Your task to perform on an android device: Open settings Image 0: 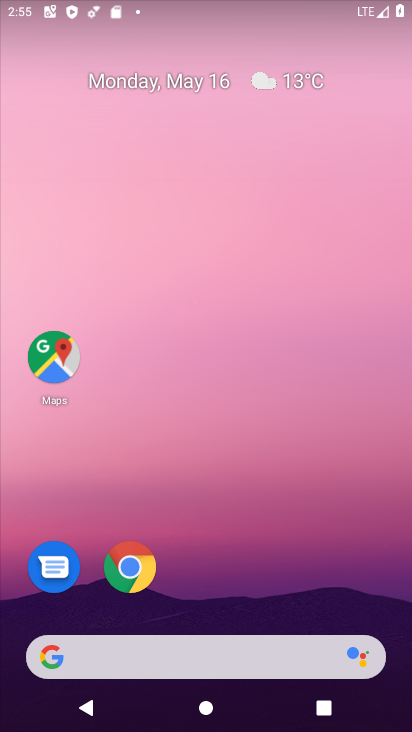
Step 0: drag from (253, 607) to (328, 52)
Your task to perform on an android device: Open settings Image 1: 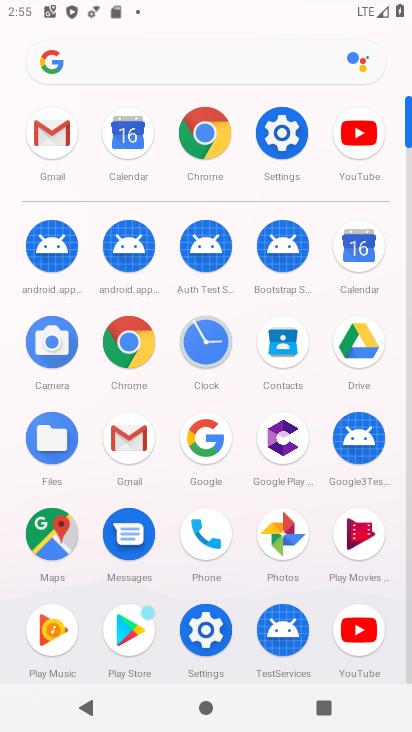
Step 1: click (289, 120)
Your task to perform on an android device: Open settings Image 2: 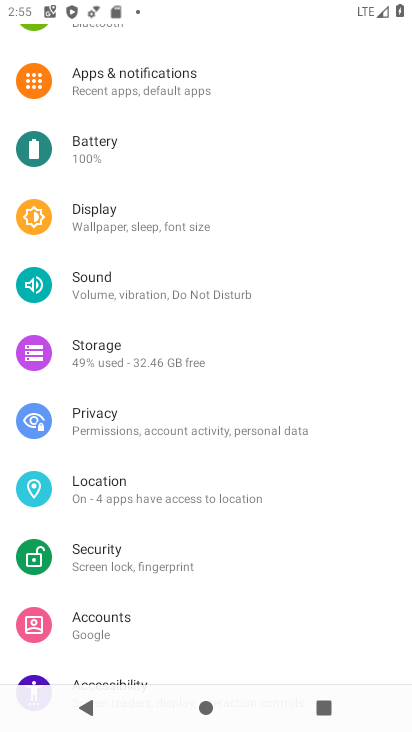
Step 2: task complete